Your task to perform on an android device: turn on data saver in the chrome app Image 0: 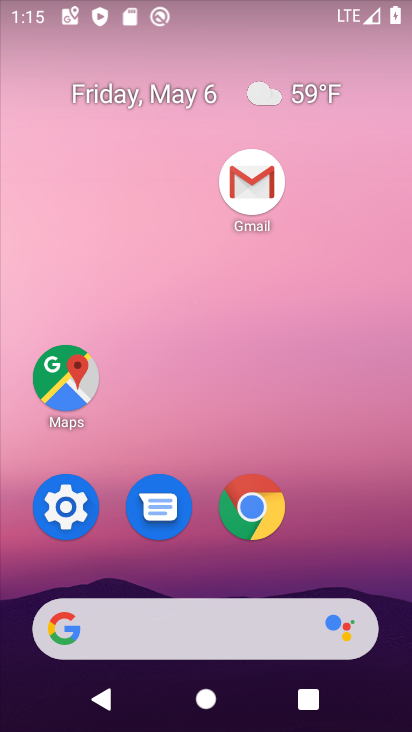
Step 0: click (248, 504)
Your task to perform on an android device: turn on data saver in the chrome app Image 1: 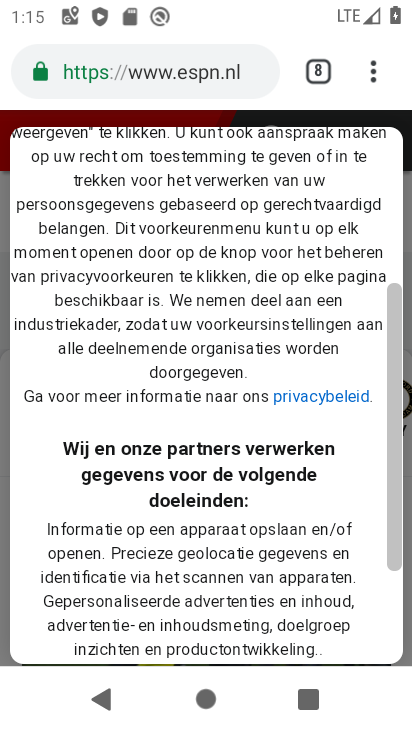
Step 1: click (371, 73)
Your task to perform on an android device: turn on data saver in the chrome app Image 2: 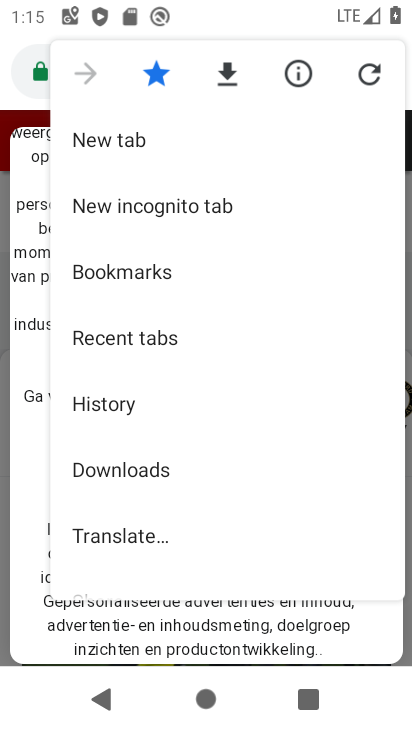
Step 2: drag from (228, 493) to (139, 130)
Your task to perform on an android device: turn on data saver in the chrome app Image 3: 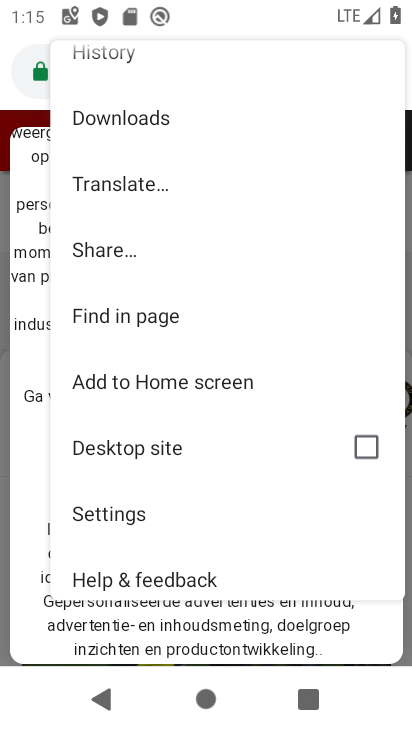
Step 3: click (133, 513)
Your task to perform on an android device: turn on data saver in the chrome app Image 4: 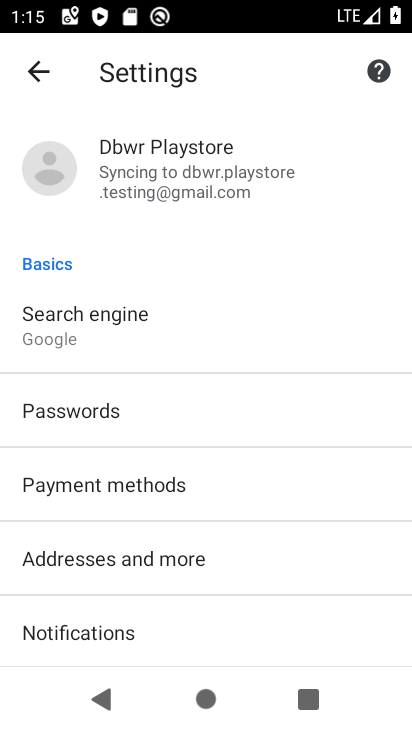
Step 4: drag from (237, 525) to (257, 247)
Your task to perform on an android device: turn on data saver in the chrome app Image 5: 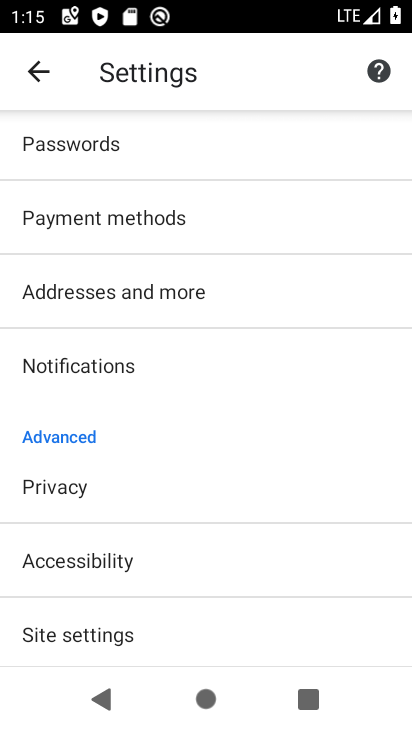
Step 5: drag from (212, 513) to (230, 226)
Your task to perform on an android device: turn on data saver in the chrome app Image 6: 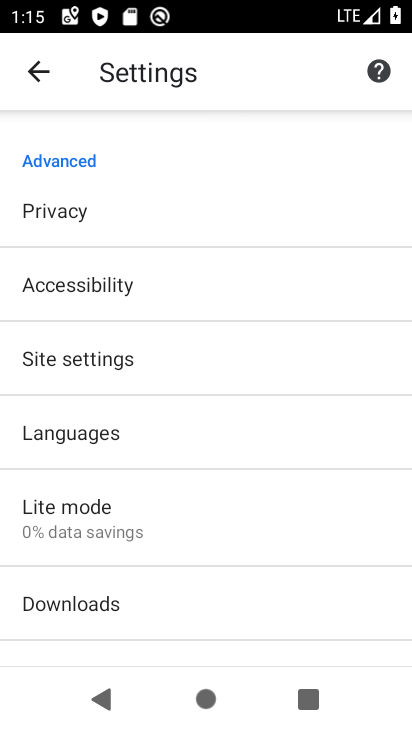
Step 6: click (87, 496)
Your task to perform on an android device: turn on data saver in the chrome app Image 7: 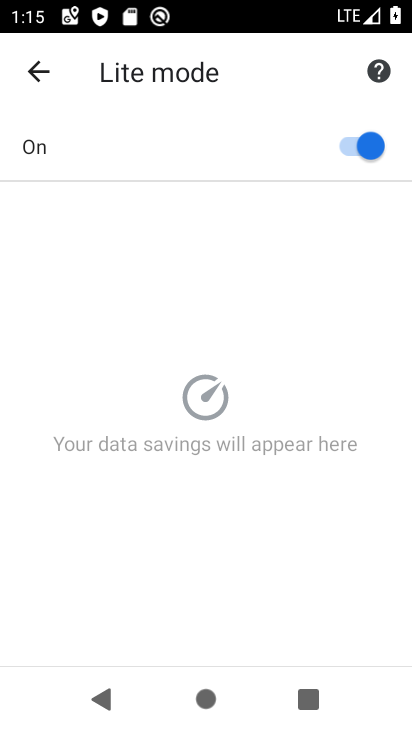
Step 7: task complete